Your task to perform on an android device: snooze an email in the gmail app Image 0: 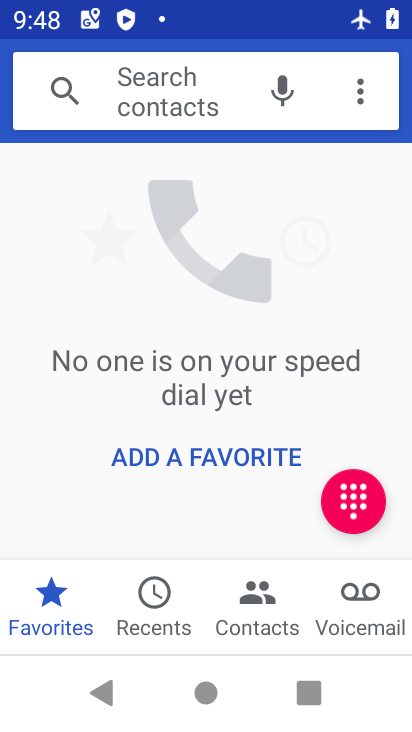
Step 0: press home button
Your task to perform on an android device: snooze an email in the gmail app Image 1: 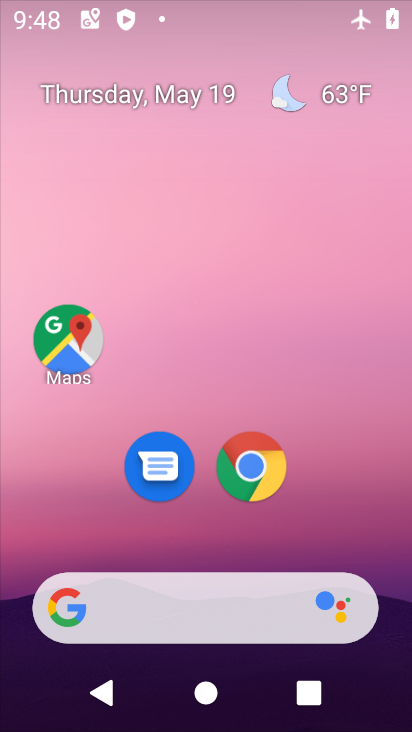
Step 1: drag from (382, 634) to (280, 43)
Your task to perform on an android device: snooze an email in the gmail app Image 2: 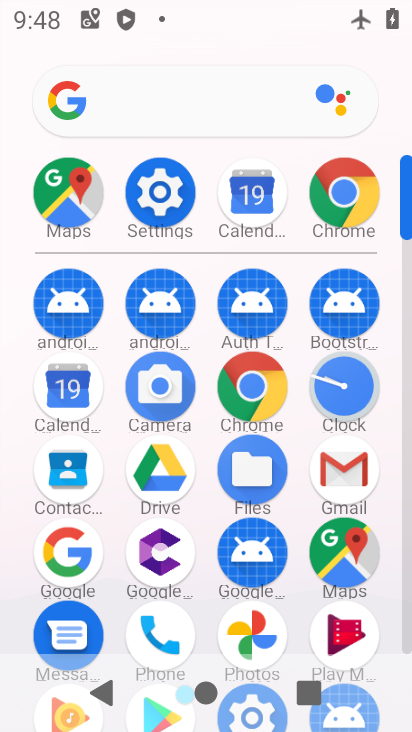
Step 2: click (358, 477)
Your task to perform on an android device: snooze an email in the gmail app Image 3: 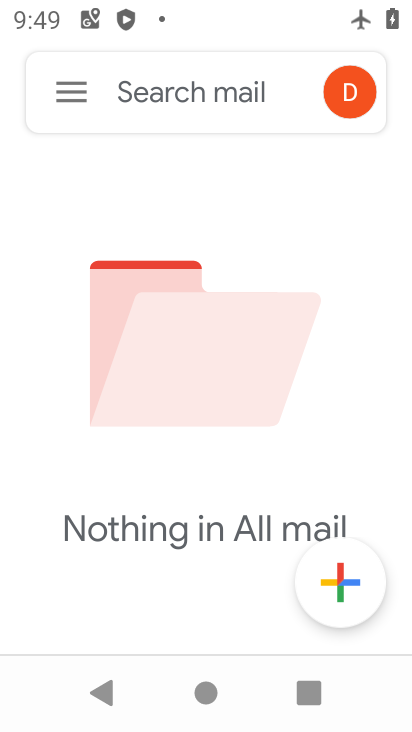
Step 3: click (45, 86)
Your task to perform on an android device: snooze an email in the gmail app Image 4: 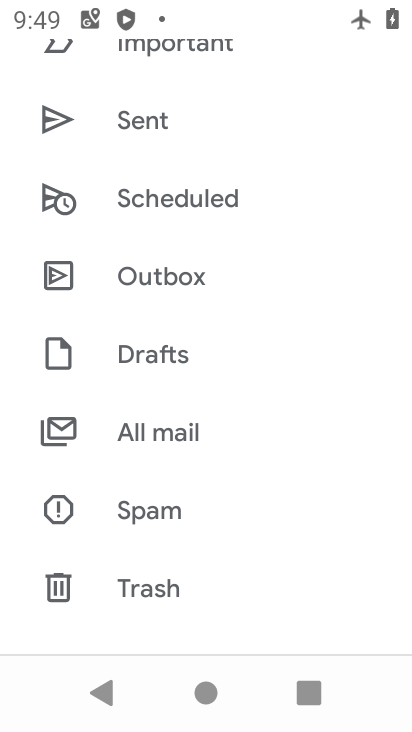
Step 4: task complete